Your task to perform on an android device: When is my next meeting? Image 0: 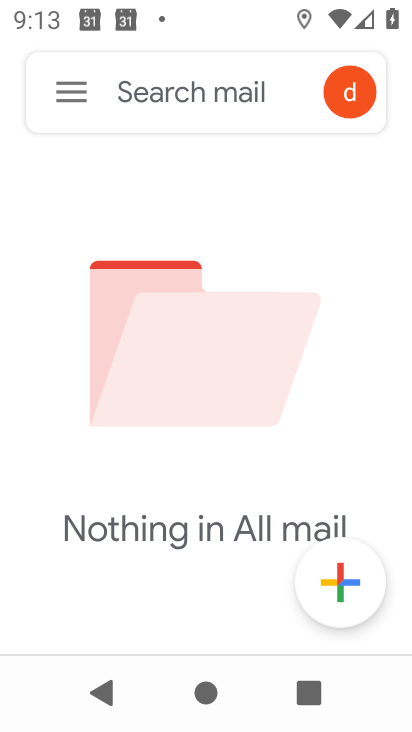
Step 0: press home button
Your task to perform on an android device: When is my next meeting? Image 1: 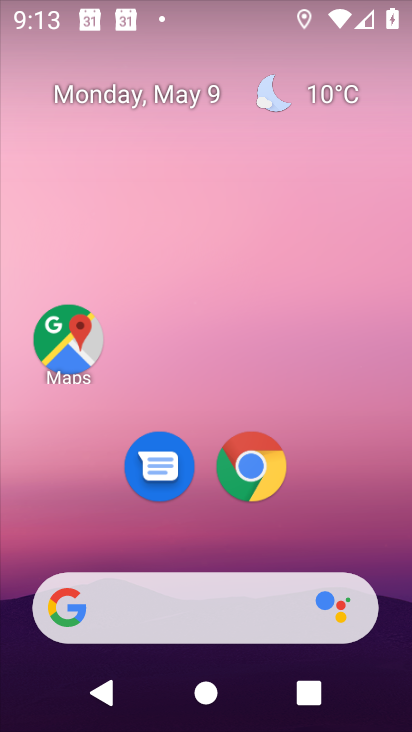
Step 1: drag from (209, 550) to (196, 51)
Your task to perform on an android device: When is my next meeting? Image 2: 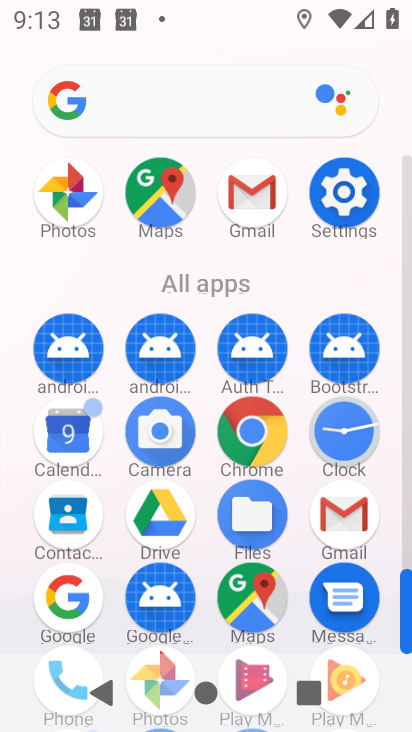
Step 2: click (66, 433)
Your task to perform on an android device: When is my next meeting? Image 3: 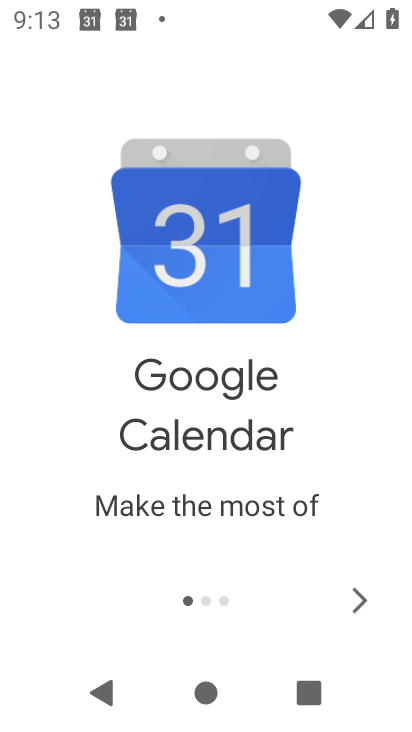
Step 3: click (361, 585)
Your task to perform on an android device: When is my next meeting? Image 4: 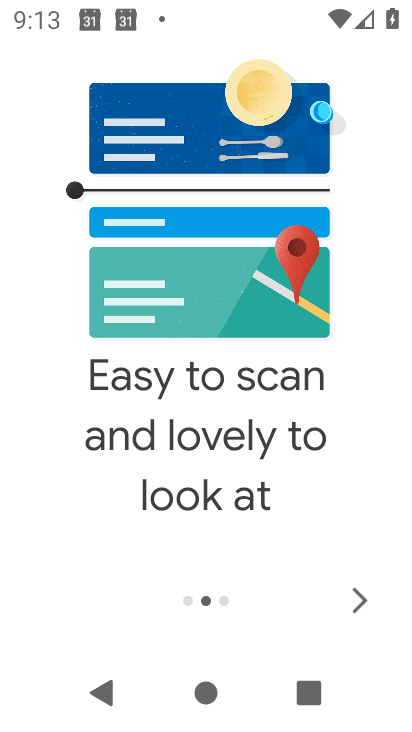
Step 4: click (365, 595)
Your task to perform on an android device: When is my next meeting? Image 5: 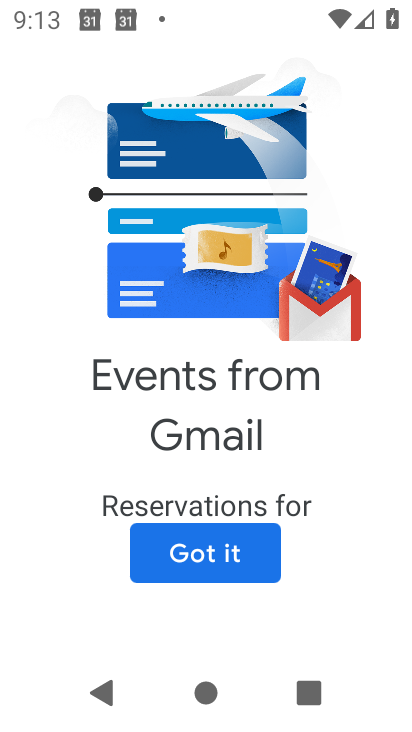
Step 5: click (224, 567)
Your task to perform on an android device: When is my next meeting? Image 6: 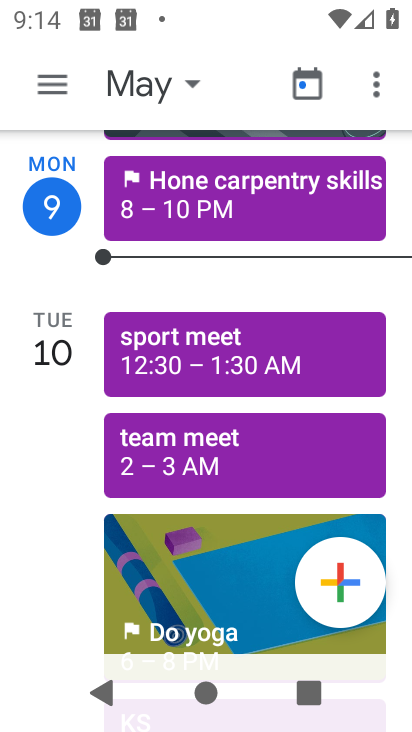
Step 6: task complete